Your task to perform on an android device: Open the stopwatch Image 0: 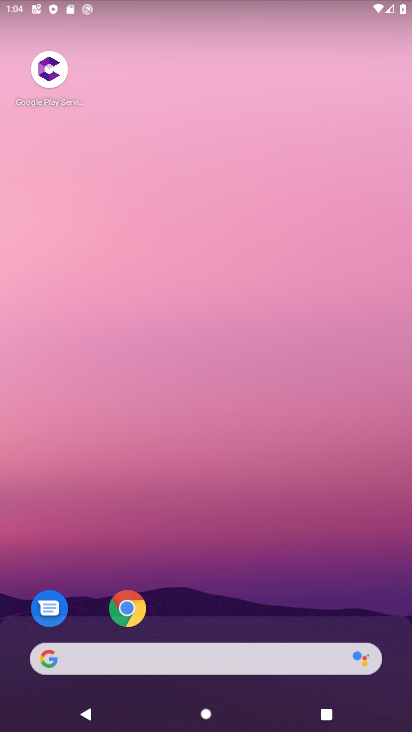
Step 0: drag from (176, 628) to (232, 360)
Your task to perform on an android device: Open the stopwatch Image 1: 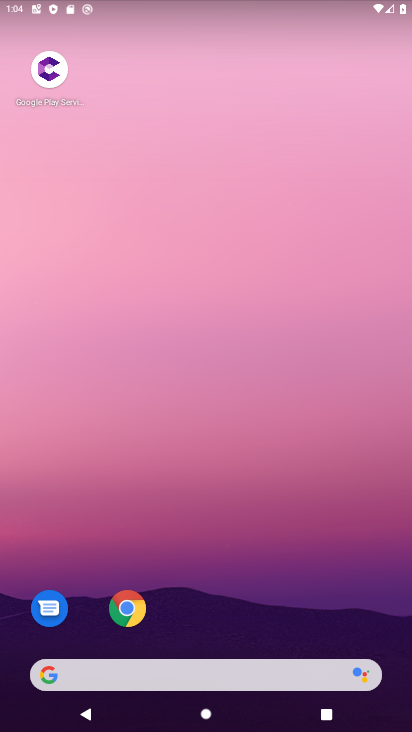
Step 1: drag from (200, 621) to (309, 95)
Your task to perform on an android device: Open the stopwatch Image 2: 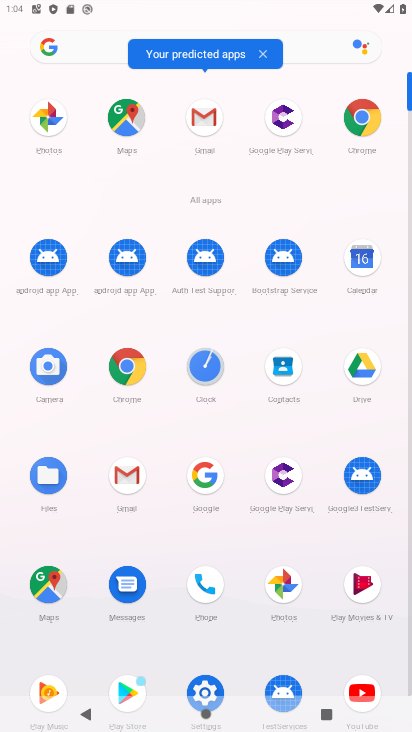
Step 2: click (212, 365)
Your task to perform on an android device: Open the stopwatch Image 3: 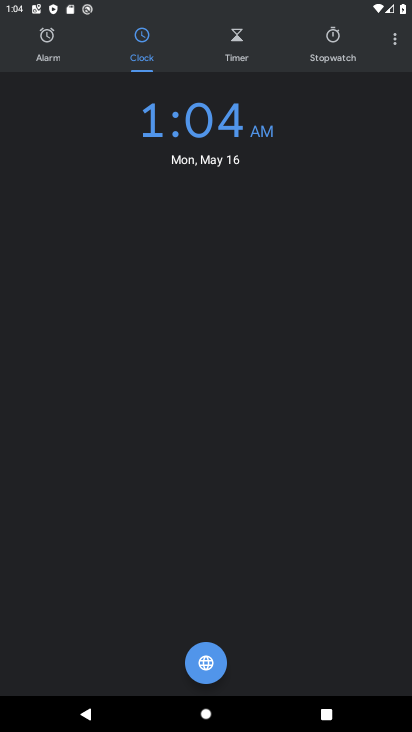
Step 3: click (340, 32)
Your task to perform on an android device: Open the stopwatch Image 4: 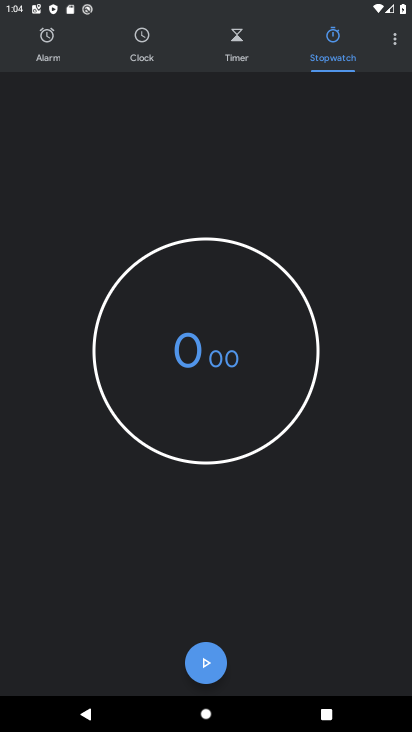
Step 4: task complete